Your task to perform on an android device: Open notification settings Image 0: 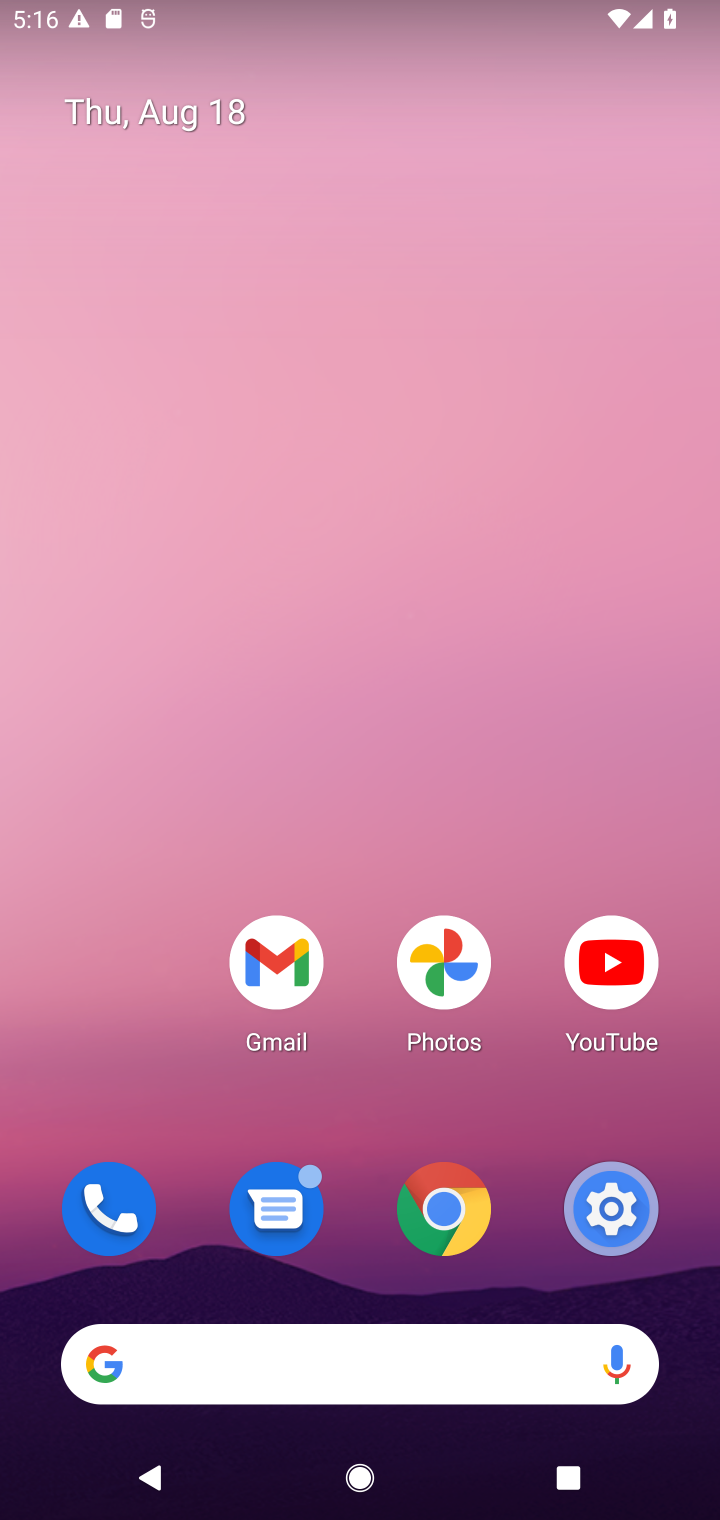
Step 0: drag from (517, 1229) to (335, 92)
Your task to perform on an android device: Open notification settings Image 1: 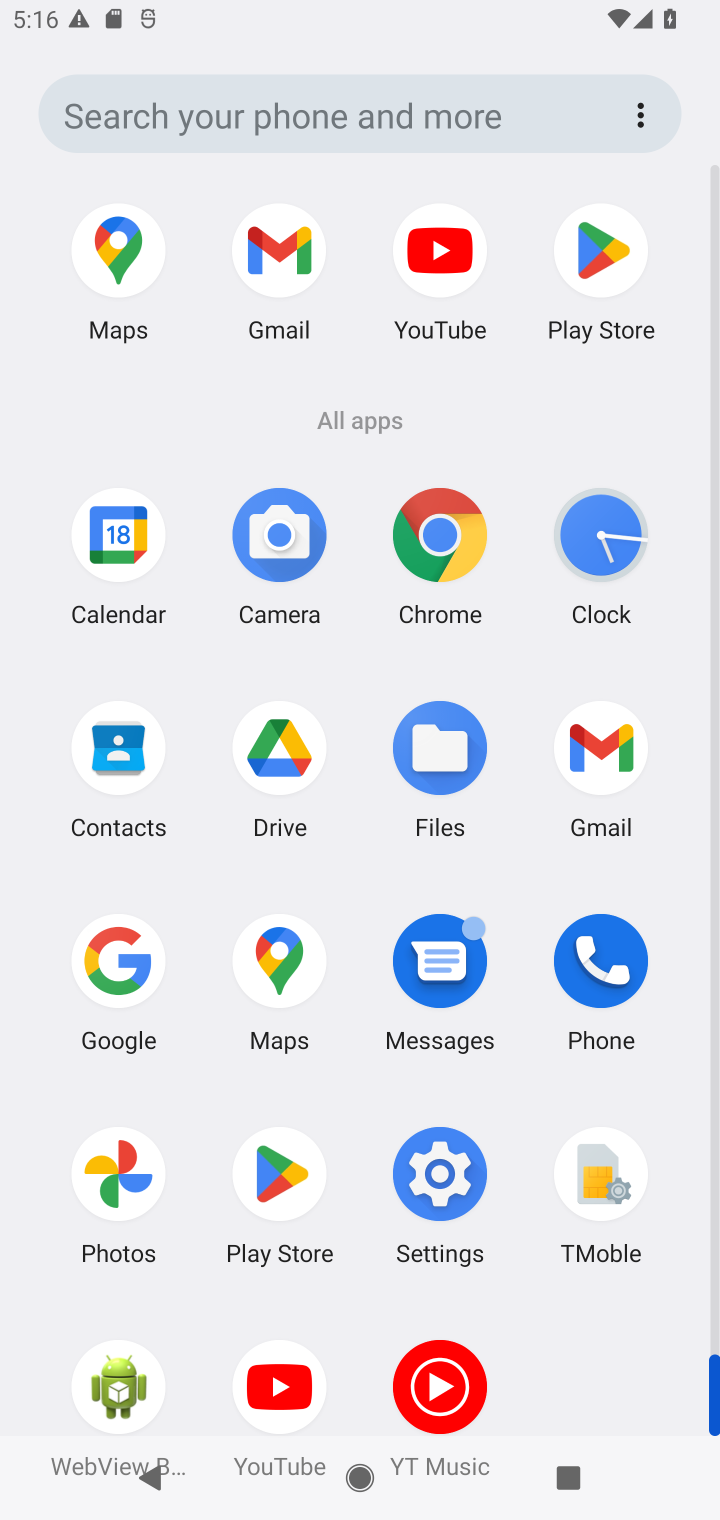
Step 1: click (452, 1169)
Your task to perform on an android device: Open notification settings Image 2: 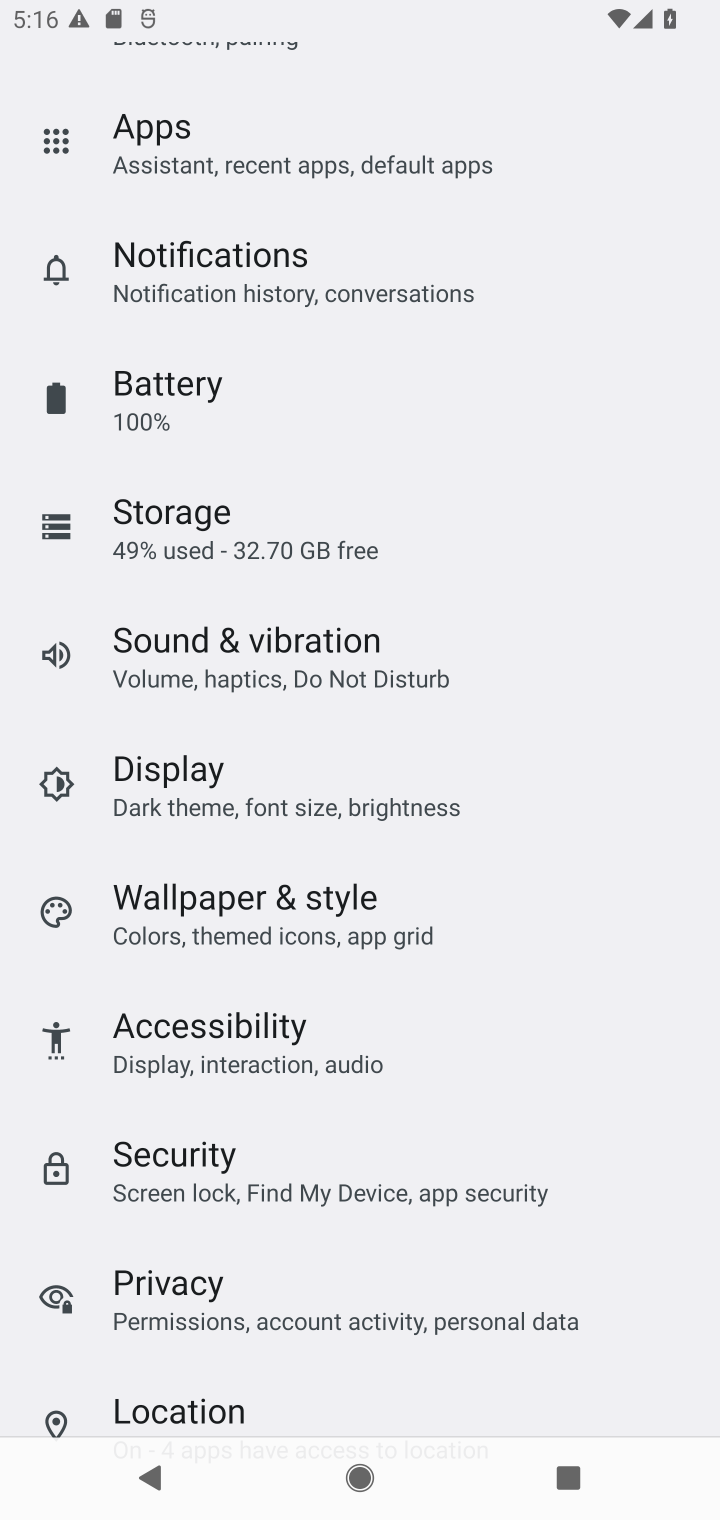
Step 2: click (277, 278)
Your task to perform on an android device: Open notification settings Image 3: 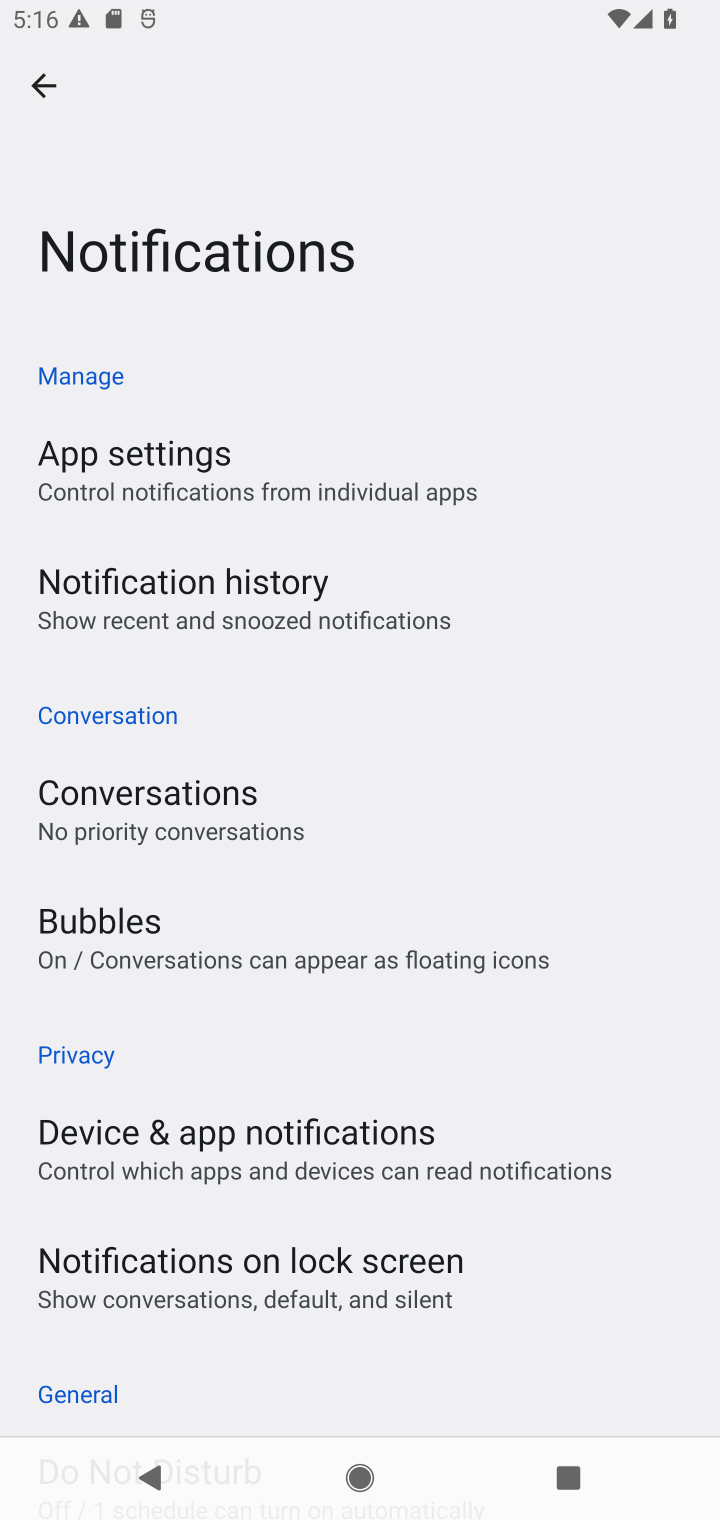
Step 3: task complete